Your task to perform on an android device: Clear the shopping cart on walmart. Search for razer nari on walmart, select the first entry, and add it to the cart. Image 0: 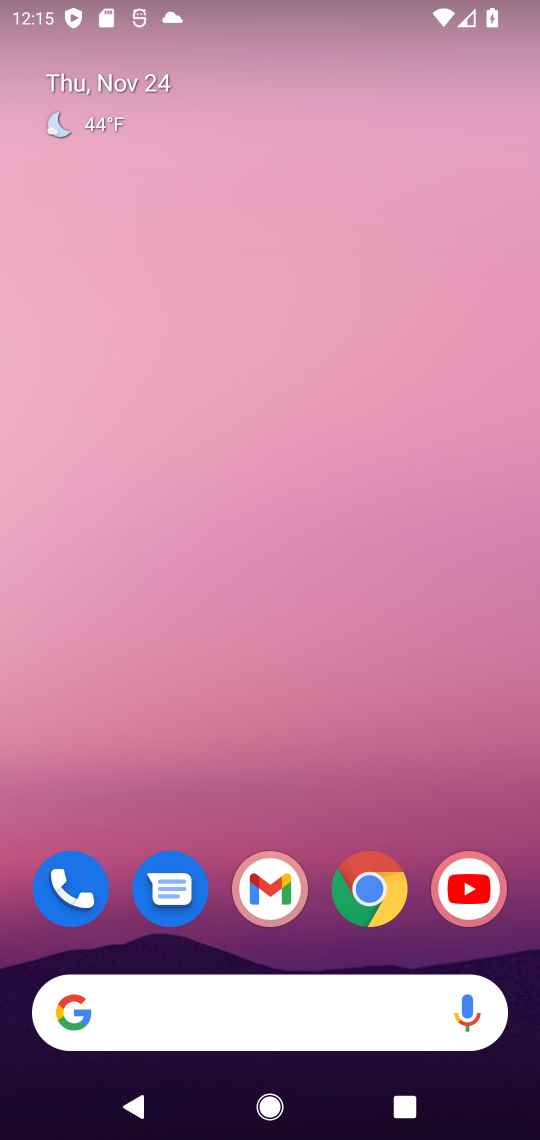
Step 0: click (372, 898)
Your task to perform on an android device: Clear the shopping cart on walmart. Search for razer nari on walmart, select the first entry, and add it to the cart. Image 1: 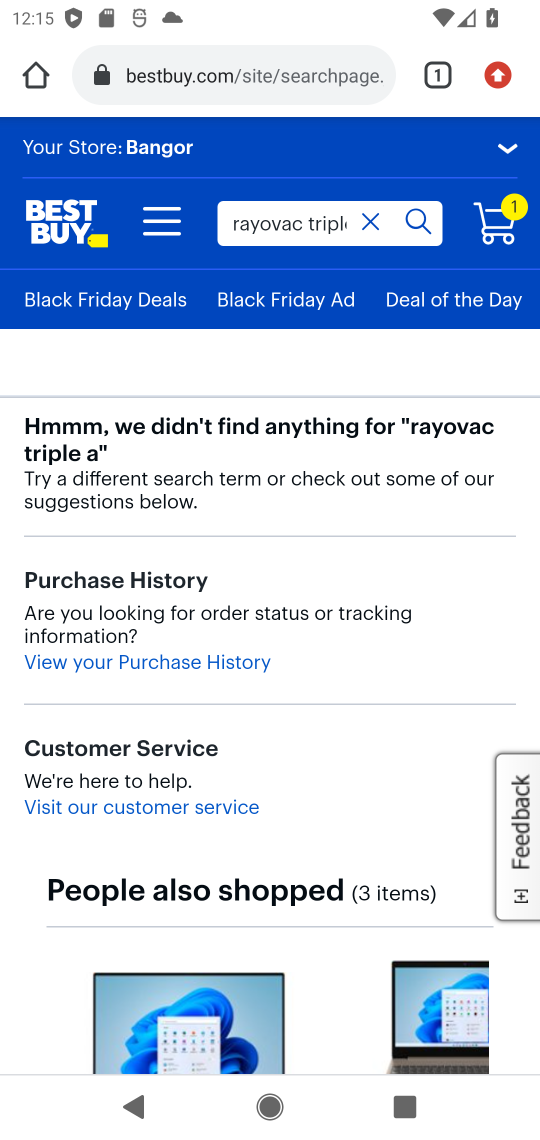
Step 1: click (187, 77)
Your task to perform on an android device: Clear the shopping cart on walmart. Search for razer nari on walmart, select the first entry, and add it to the cart. Image 2: 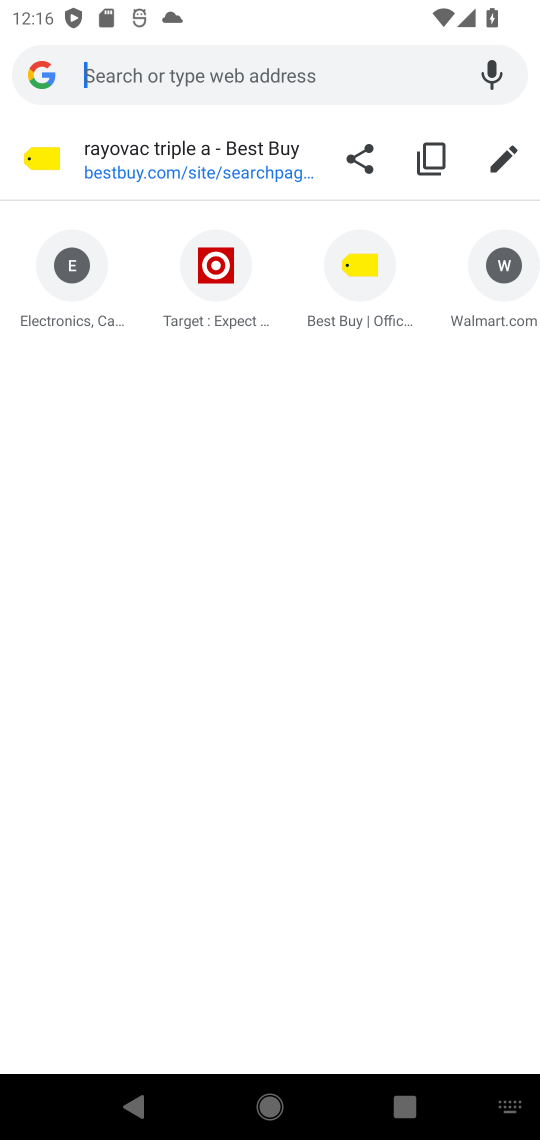
Step 2: type "walmart.com"
Your task to perform on an android device: Clear the shopping cart on walmart. Search for razer nari on walmart, select the first entry, and add it to the cart. Image 3: 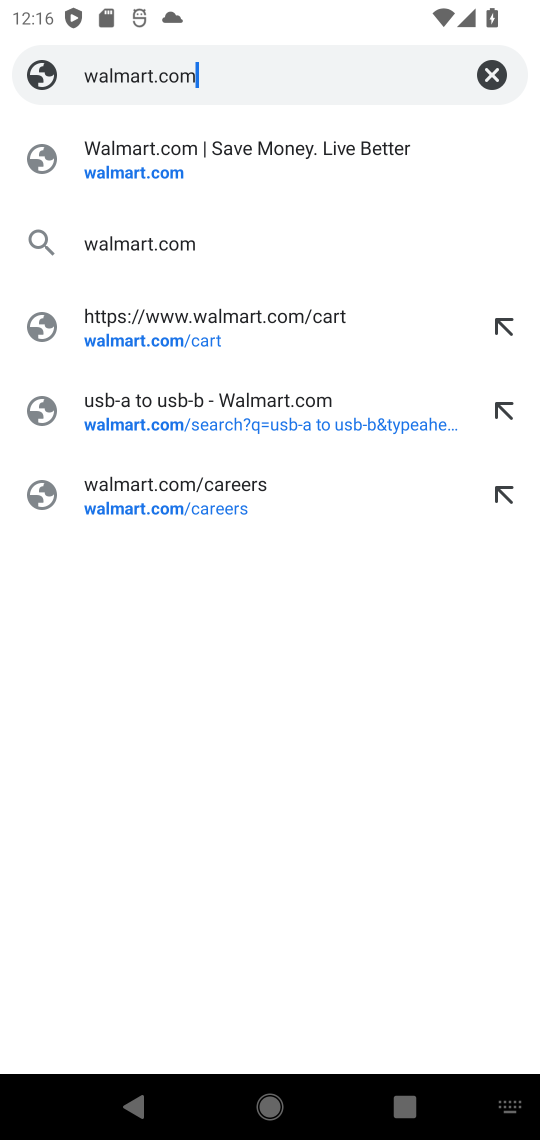
Step 3: click (108, 177)
Your task to perform on an android device: Clear the shopping cart on walmart. Search for razer nari on walmart, select the first entry, and add it to the cart. Image 4: 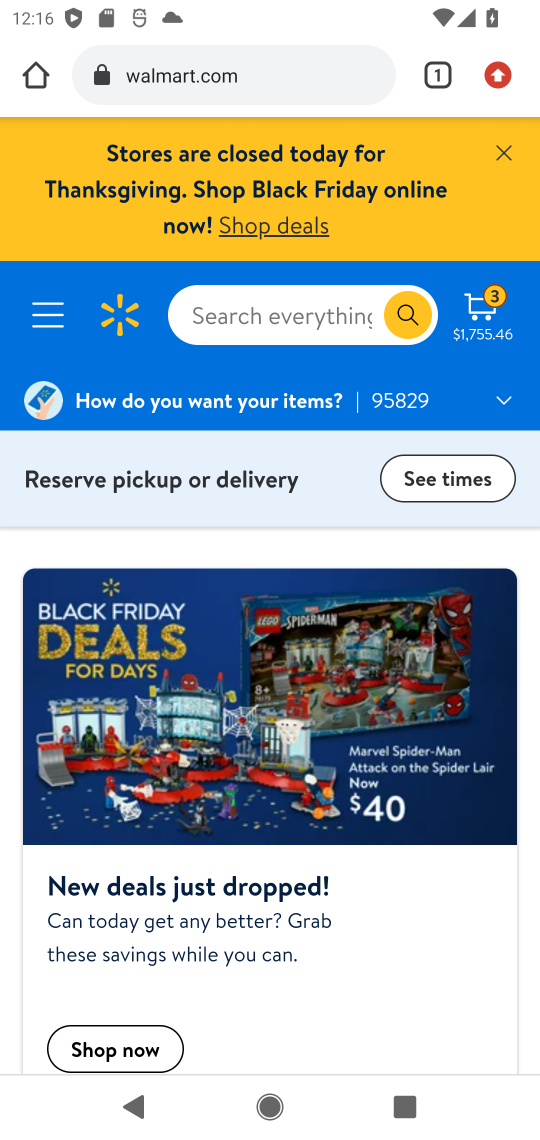
Step 4: click (481, 319)
Your task to perform on an android device: Clear the shopping cart on walmart. Search for razer nari on walmart, select the first entry, and add it to the cart. Image 5: 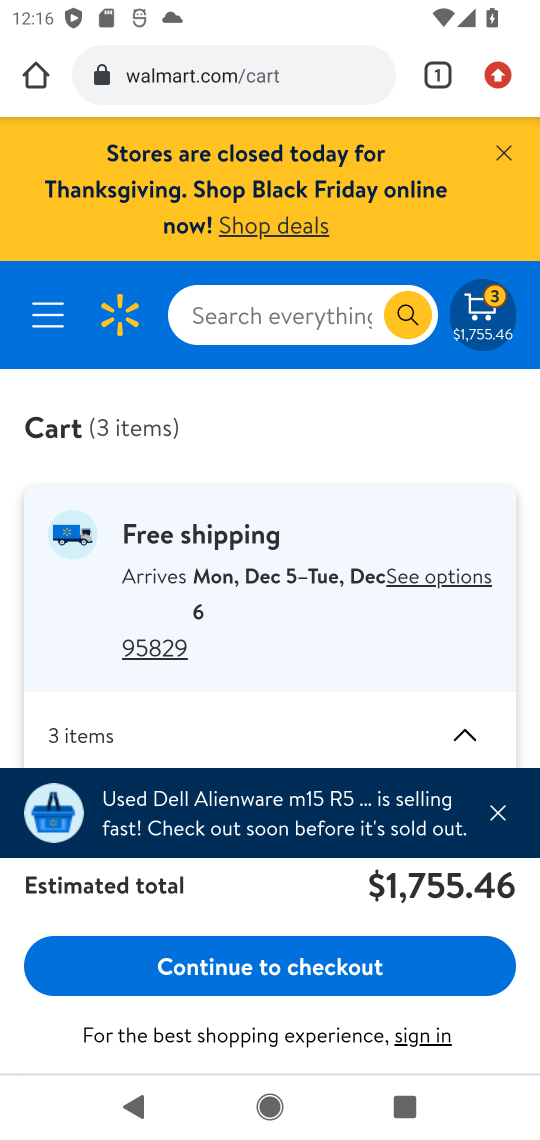
Step 5: drag from (282, 666) to (280, 256)
Your task to perform on an android device: Clear the shopping cart on walmart. Search for razer nari on walmart, select the first entry, and add it to the cart. Image 6: 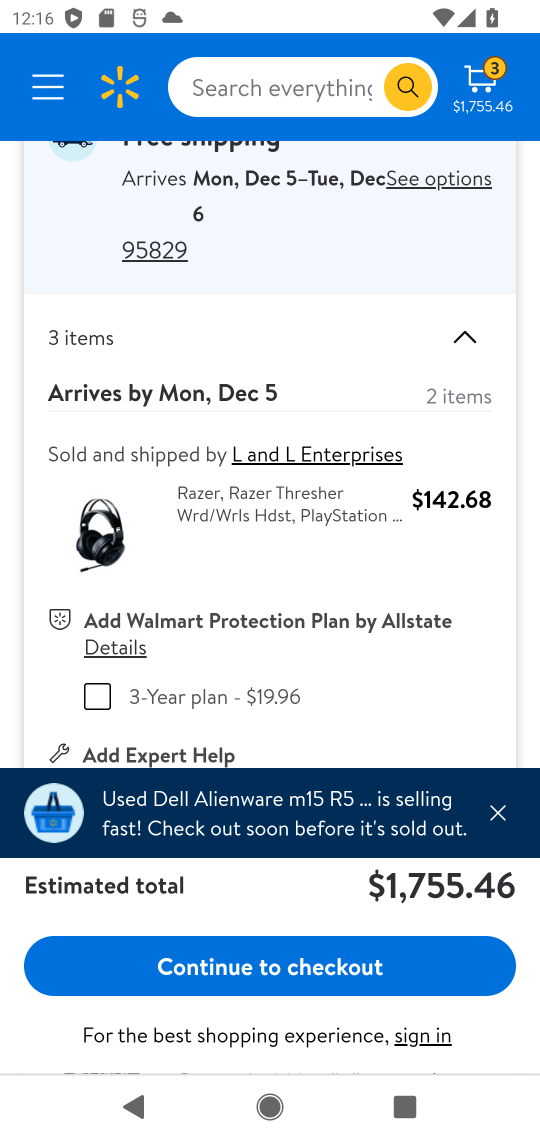
Step 6: drag from (200, 639) to (208, 416)
Your task to perform on an android device: Clear the shopping cart on walmart. Search for razer nari on walmart, select the first entry, and add it to the cart. Image 7: 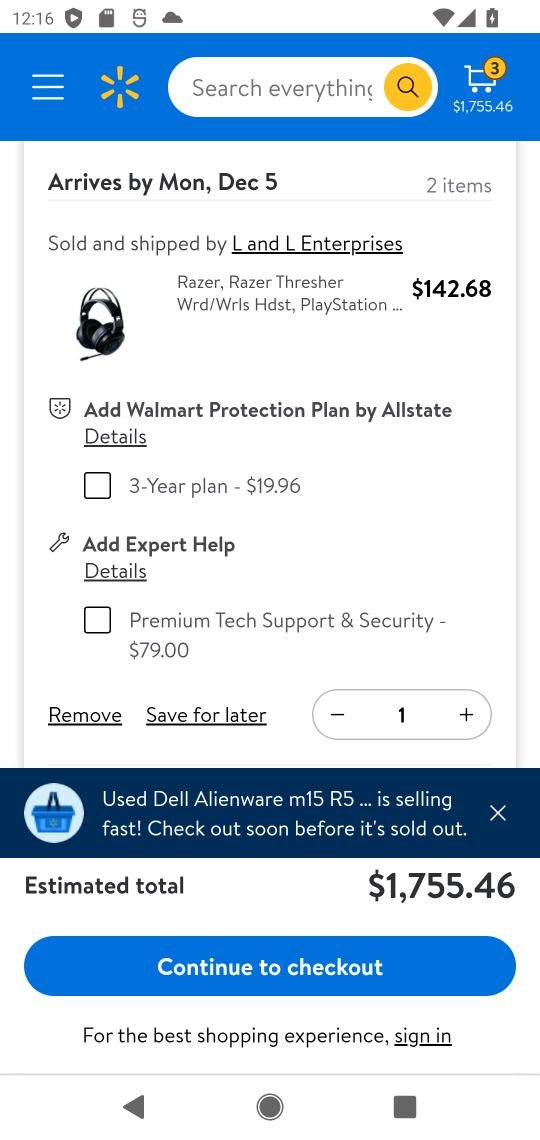
Step 7: click (71, 713)
Your task to perform on an android device: Clear the shopping cart on walmart. Search for razer nari on walmart, select the first entry, and add it to the cart. Image 8: 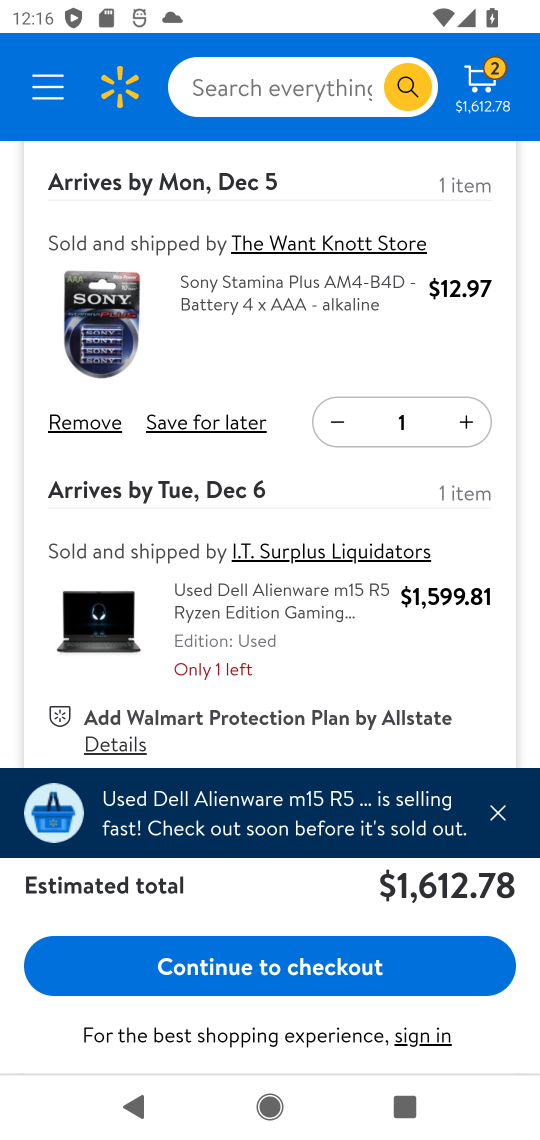
Step 8: click (149, 689)
Your task to perform on an android device: Clear the shopping cart on walmart. Search for razer nari on walmart, select the first entry, and add it to the cart. Image 9: 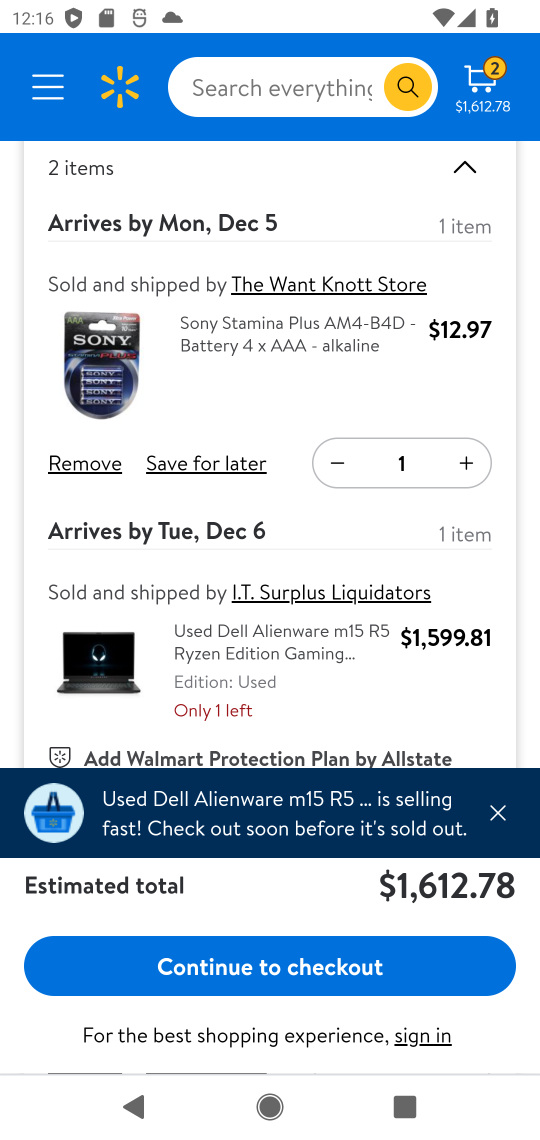
Step 9: click (69, 469)
Your task to perform on an android device: Clear the shopping cart on walmart. Search for razer nari on walmart, select the first entry, and add it to the cart. Image 10: 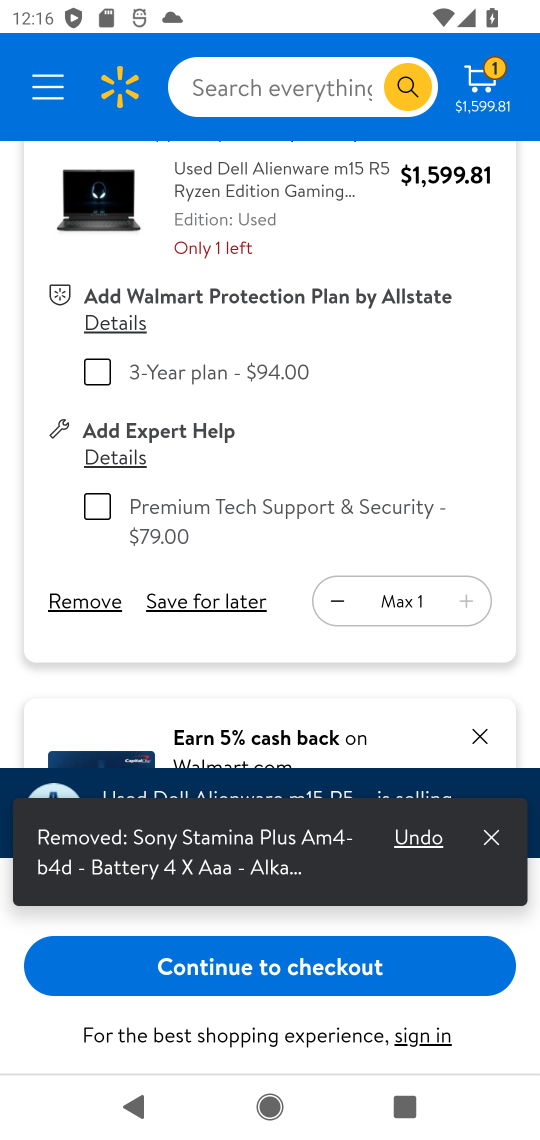
Step 10: click (82, 607)
Your task to perform on an android device: Clear the shopping cart on walmart. Search for razer nari on walmart, select the first entry, and add it to the cart. Image 11: 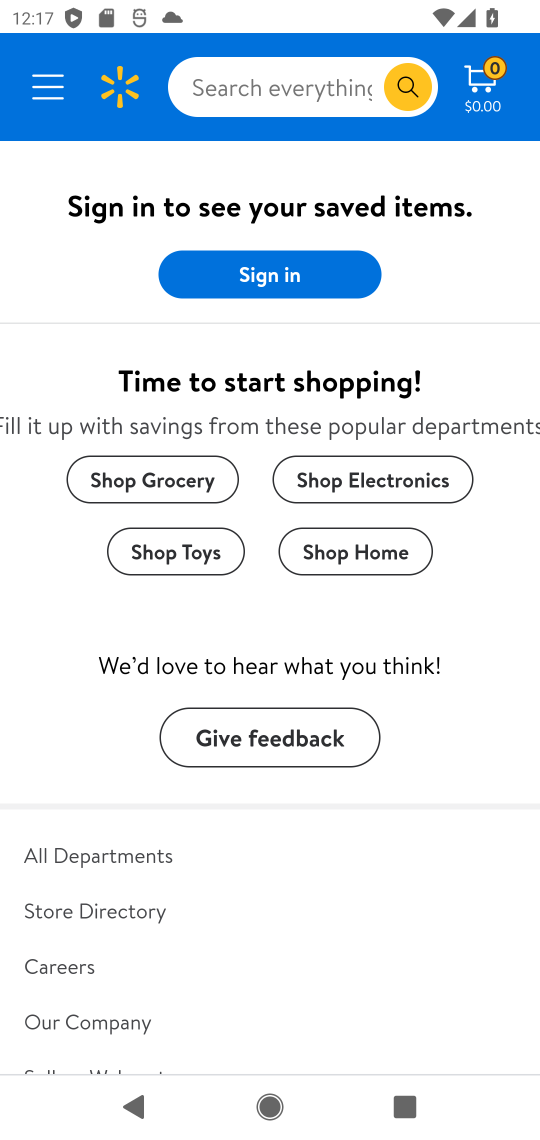
Step 11: click (256, 94)
Your task to perform on an android device: Clear the shopping cart on walmart. Search for razer nari on walmart, select the first entry, and add it to the cart. Image 12: 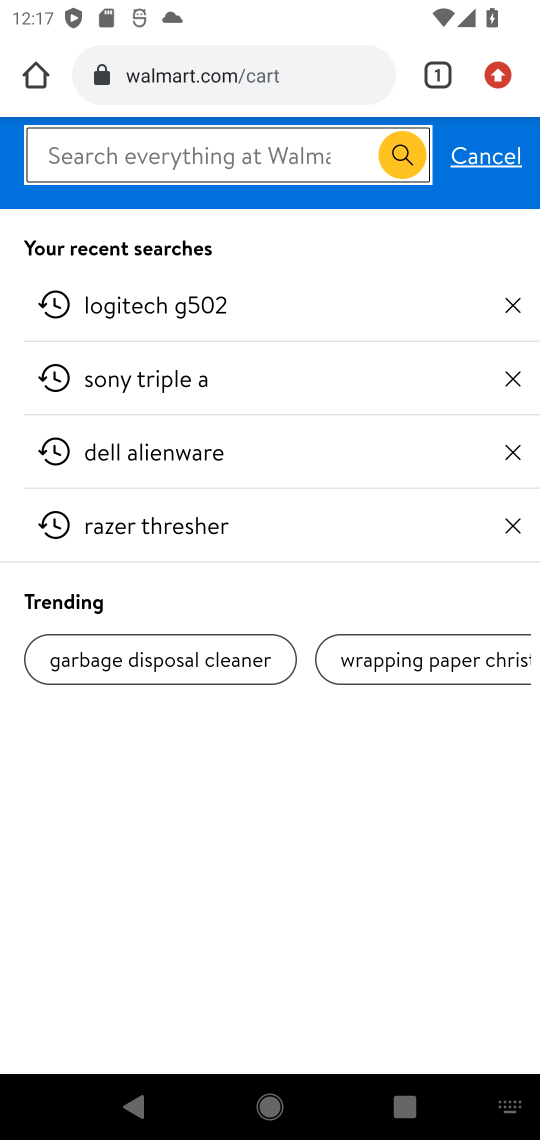
Step 12: type "razer nari "
Your task to perform on an android device: Clear the shopping cart on walmart. Search for razer nari on walmart, select the first entry, and add it to the cart. Image 13: 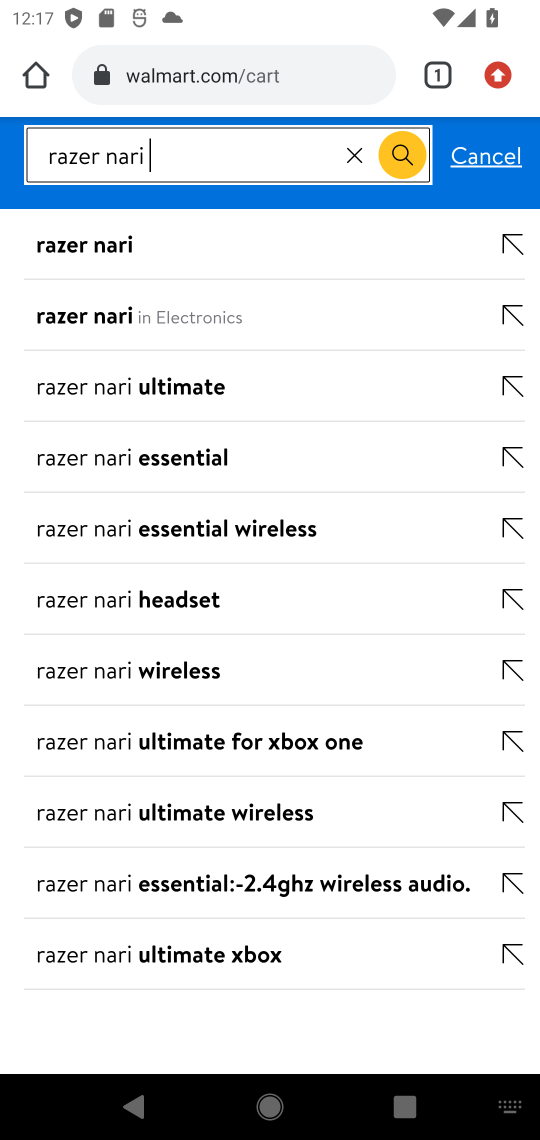
Step 13: click (78, 251)
Your task to perform on an android device: Clear the shopping cart on walmart. Search for razer nari on walmart, select the first entry, and add it to the cart. Image 14: 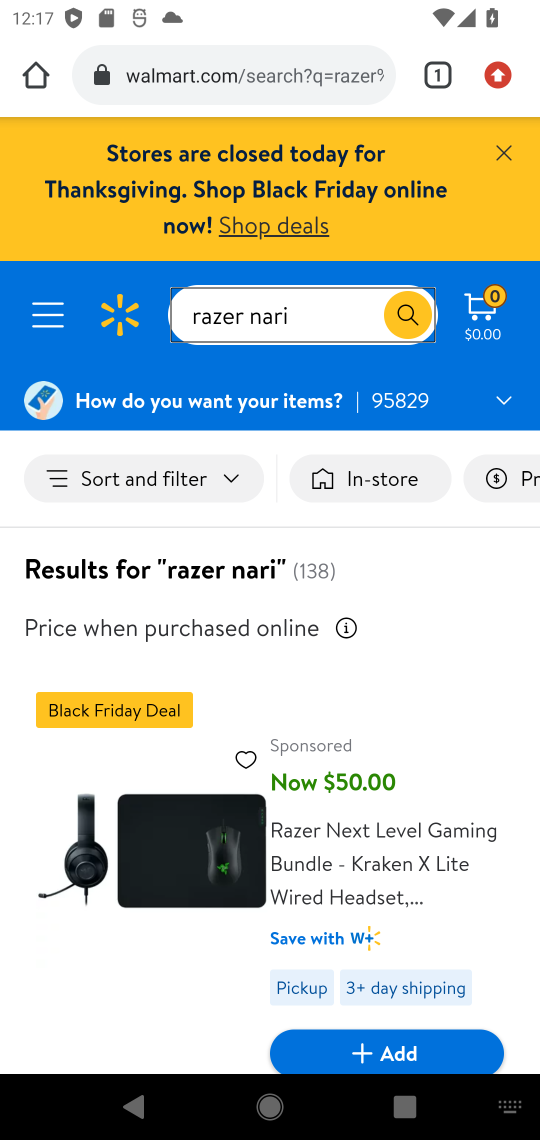
Step 14: task complete